Your task to perform on an android device: Open the Play Movies app and select the watchlist tab. Image 0: 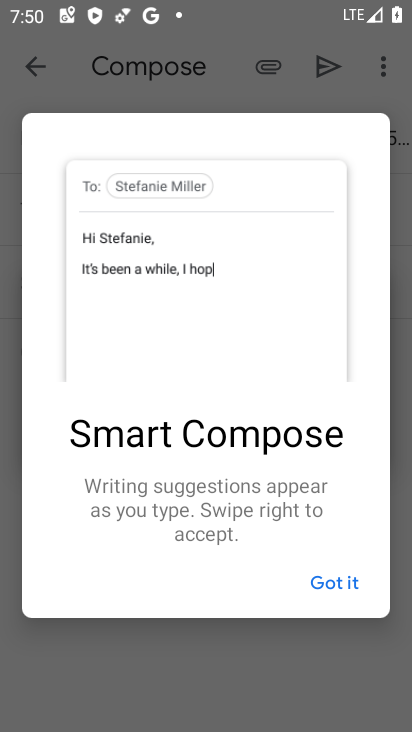
Step 0: press home button
Your task to perform on an android device: Open the Play Movies app and select the watchlist tab. Image 1: 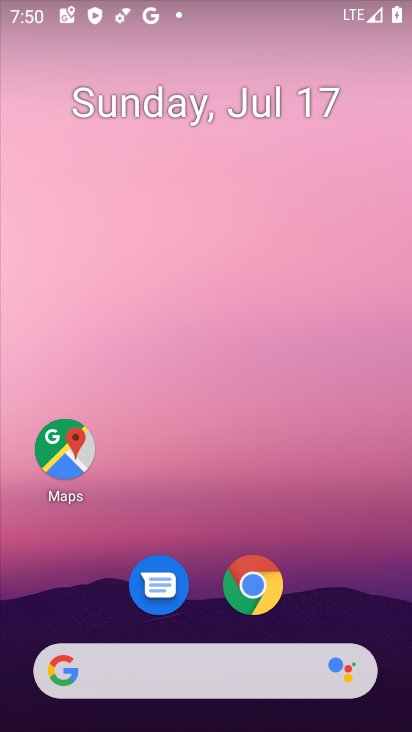
Step 1: drag from (328, 595) to (229, 49)
Your task to perform on an android device: Open the Play Movies app and select the watchlist tab. Image 2: 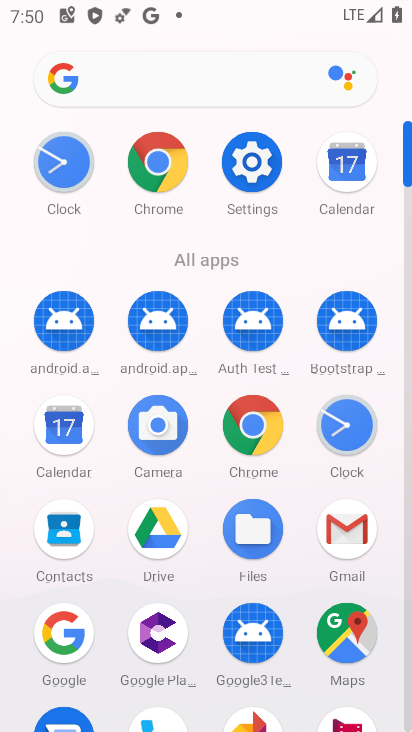
Step 2: drag from (305, 574) to (265, 271)
Your task to perform on an android device: Open the Play Movies app and select the watchlist tab. Image 3: 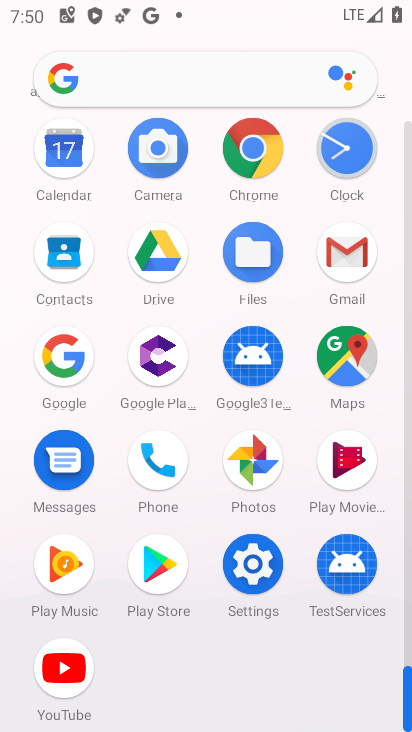
Step 3: click (345, 465)
Your task to perform on an android device: Open the Play Movies app and select the watchlist tab. Image 4: 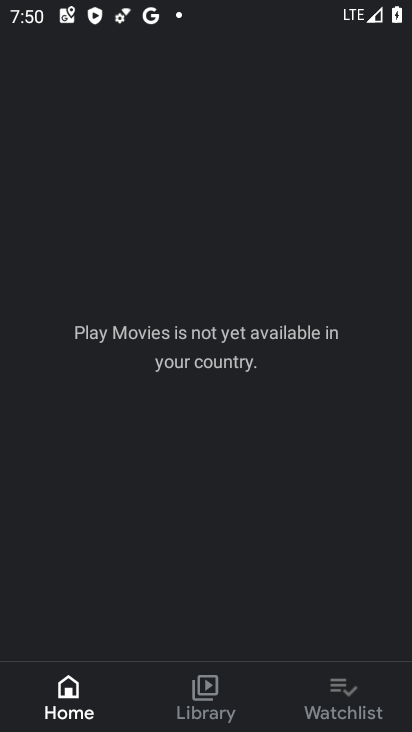
Step 4: click (345, 693)
Your task to perform on an android device: Open the Play Movies app and select the watchlist tab. Image 5: 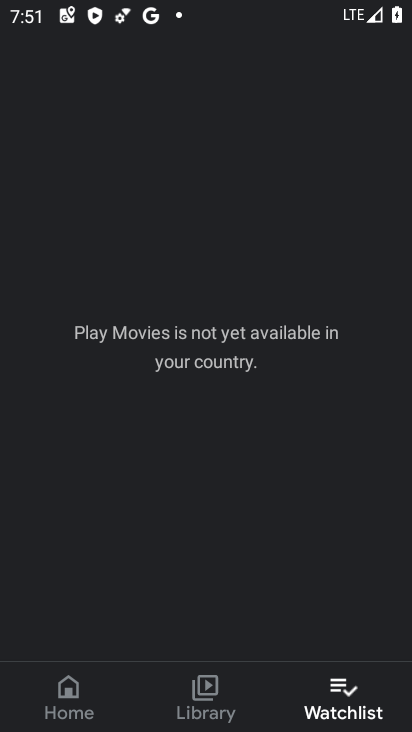
Step 5: task complete